Your task to perform on an android device: Open location settings Image 0: 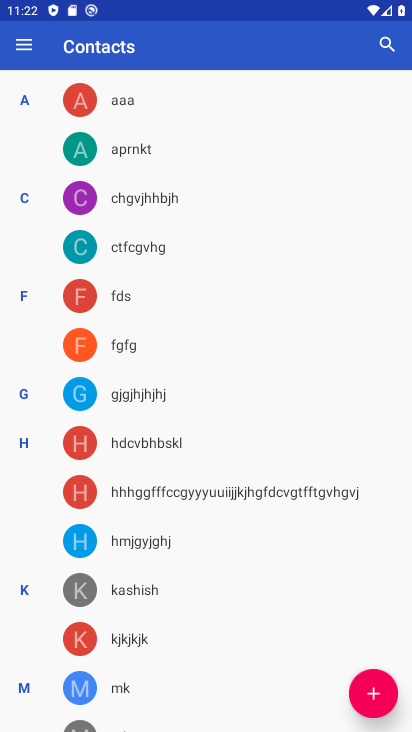
Step 0: press home button
Your task to perform on an android device: Open location settings Image 1: 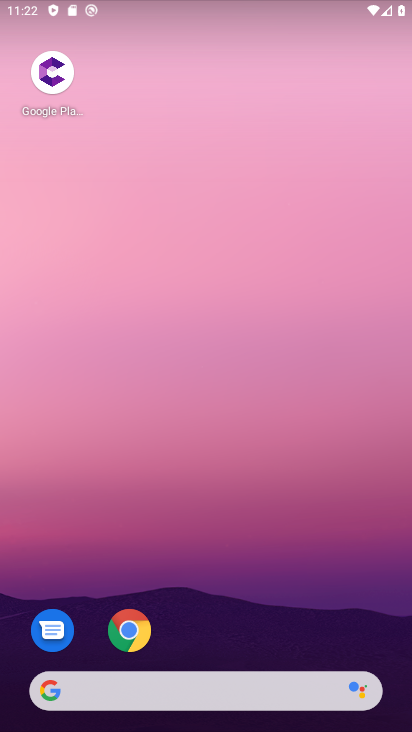
Step 1: drag from (339, 612) to (284, 26)
Your task to perform on an android device: Open location settings Image 2: 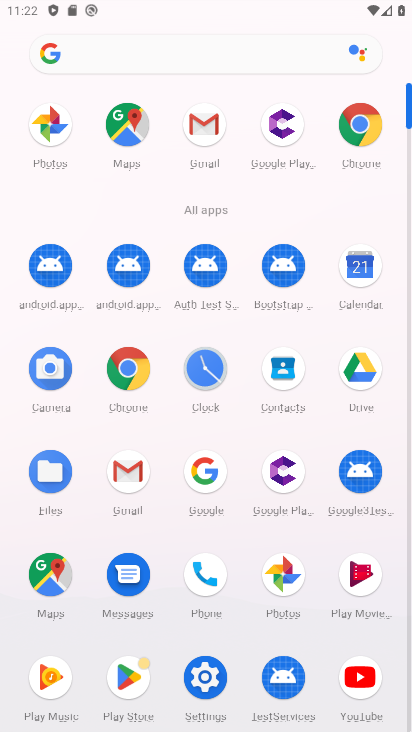
Step 2: click (195, 680)
Your task to perform on an android device: Open location settings Image 3: 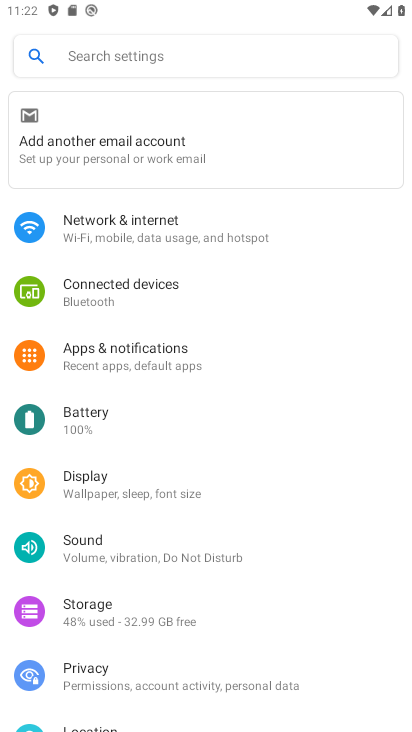
Step 3: drag from (267, 654) to (266, 284)
Your task to perform on an android device: Open location settings Image 4: 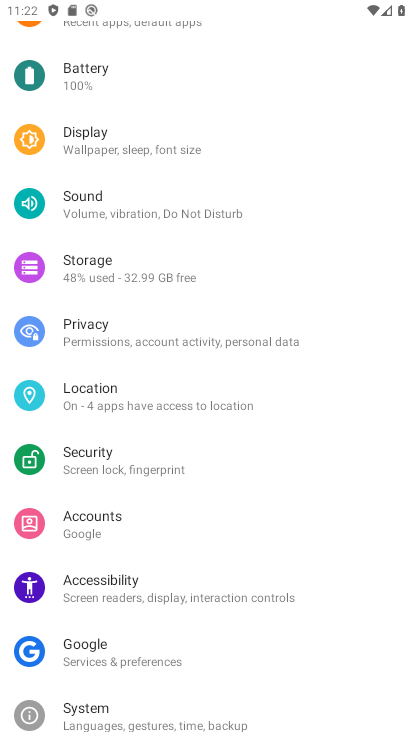
Step 4: drag from (119, 106) to (129, 471)
Your task to perform on an android device: Open location settings Image 5: 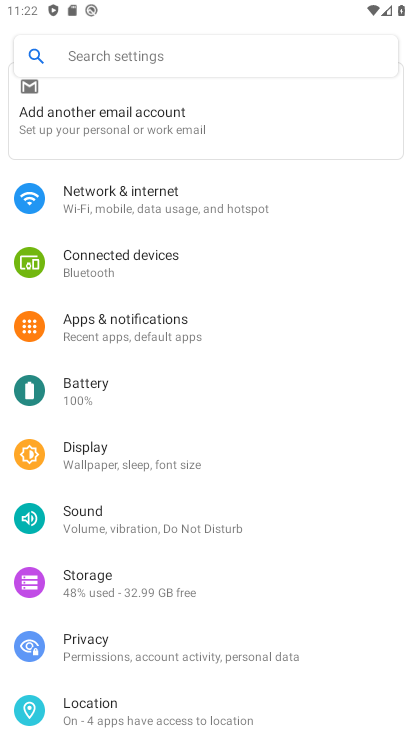
Step 5: click (90, 709)
Your task to perform on an android device: Open location settings Image 6: 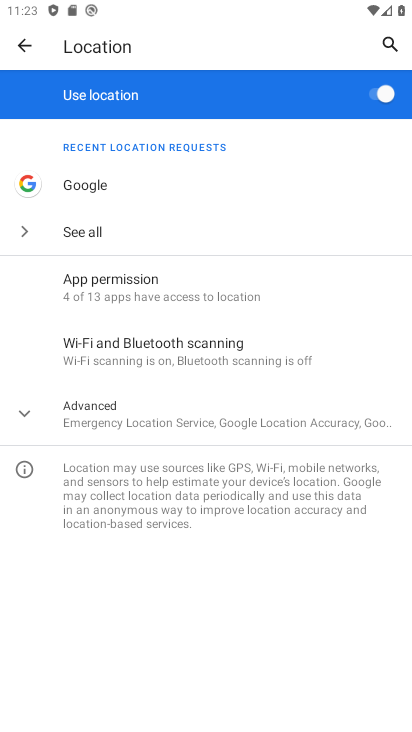
Step 6: task complete